Your task to perform on an android device: find snoozed emails in the gmail app Image 0: 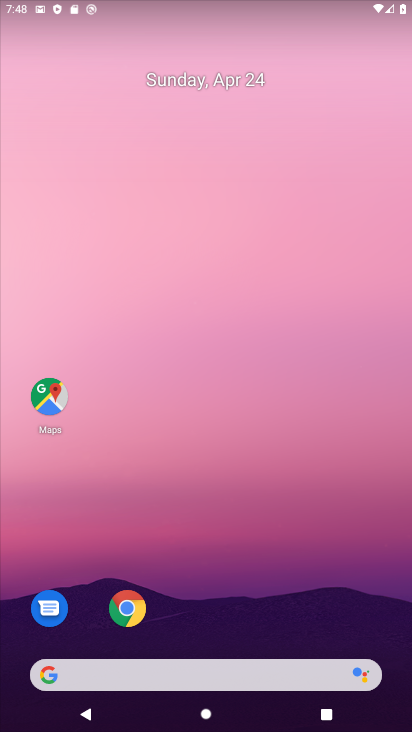
Step 0: drag from (204, 633) to (295, 42)
Your task to perform on an android device: find snoozed emails in the gmail app Image 1: 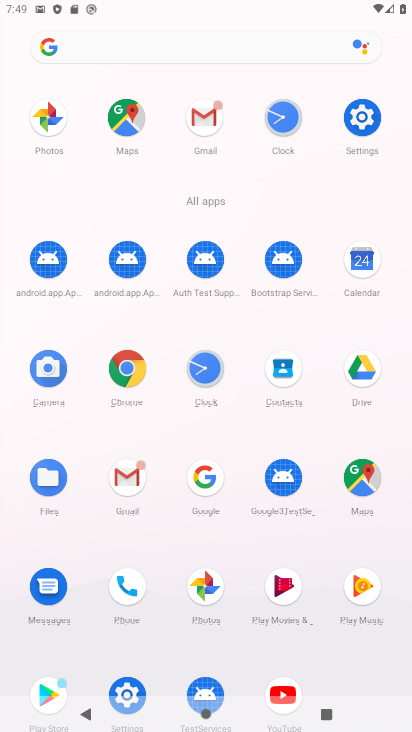
Step 1: click (132, 474)
Your task to perform on an android device: find snoozed emails in the gmail app Image 2: 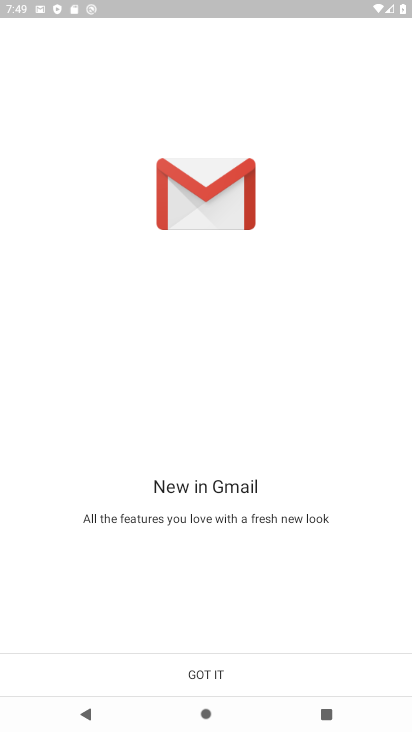
Step 2: click (236, 684)
Your task to perform on an android device: find snoozed emails in the gmail app Image 3: 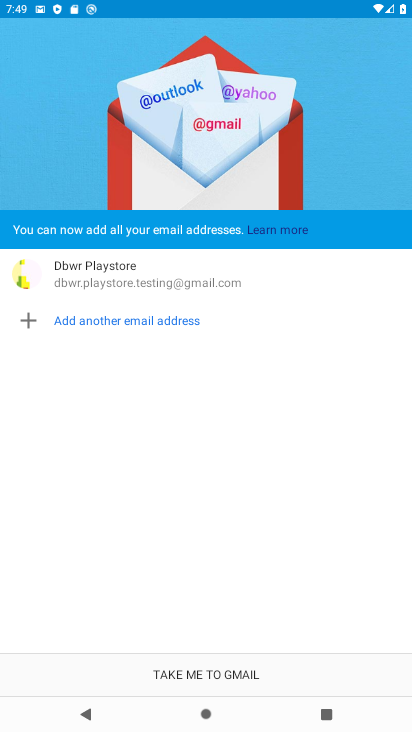
Step 3: click (231, 680)
Your task to perform on an android device: find snoozed emails in the gmail app Image 4: 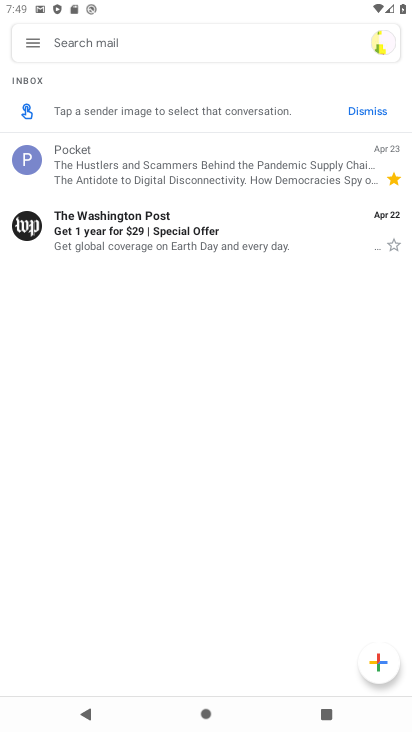
Step 4: click (27, 44)
Your task to perform on an android device: find snoozed emails in the gmail app Image 5: 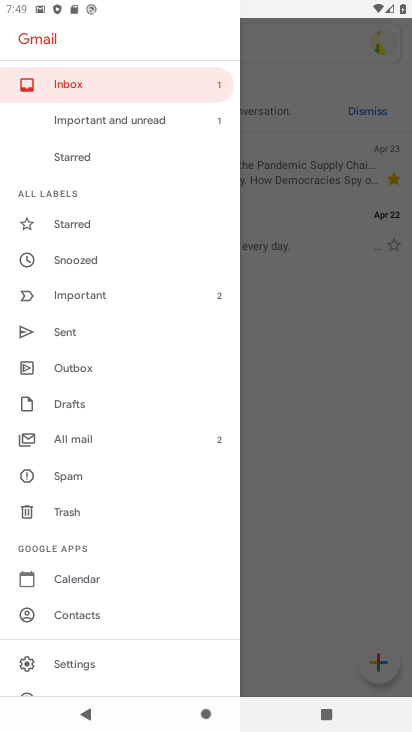
Step 5: click (129, 251)
Your task to perform on an android device: find snoozed emails in the gmail app Image 6: 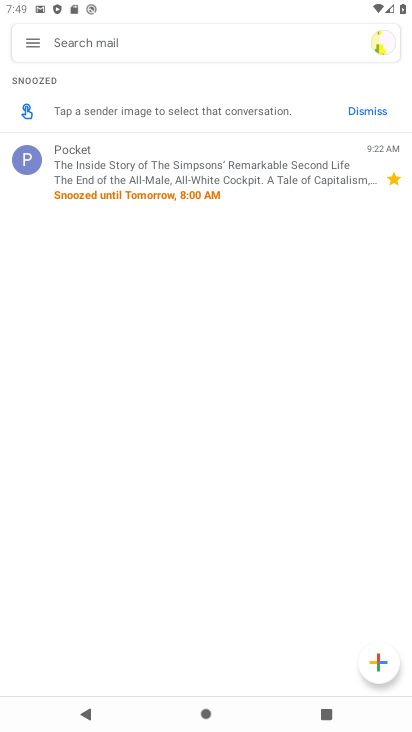
Step 6: task complete